Your task to perform on an android device: turn on wifi Image 0: 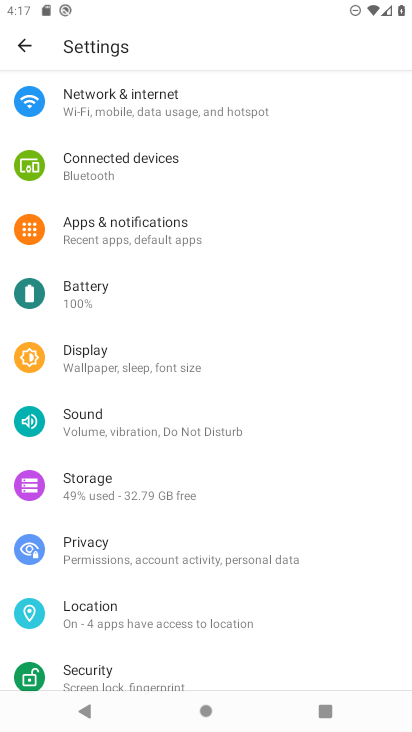
Step 0: click (169, 97)
Your task to perform on an android device: turn on wifi Image 1: 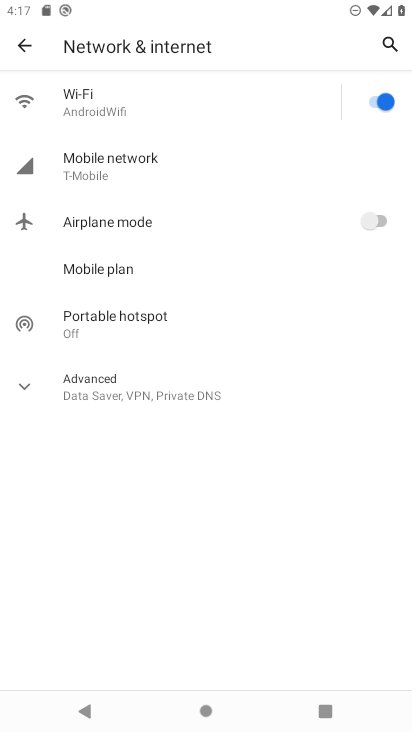
Step 1: task complete